Your task to perform on an android device: visit the assistant section in the google photos Image 0: 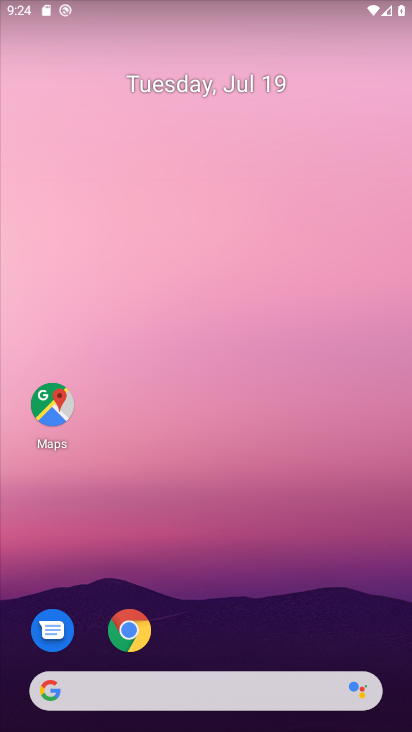
Step 0: drag from (194, 491) to (185, 24)
Your task to perform on an android device: visit the assistant section in the google photos Image 1: 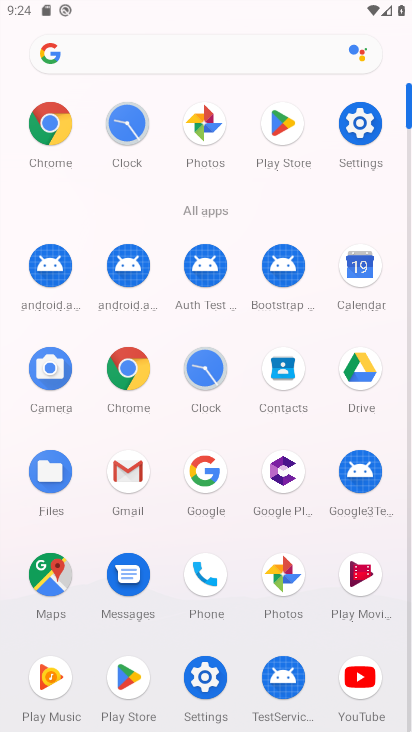
Step 1: click (284, 597)
Your task to perform on an android device: visit the assistant section in the google photos Image 2: 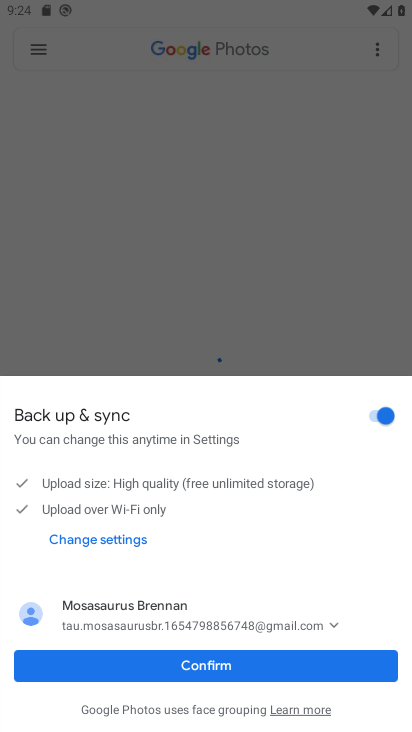
Step 2: click (226, 664)
Your task to perform on an android device: visit the assistant section in the google photos Image 3: 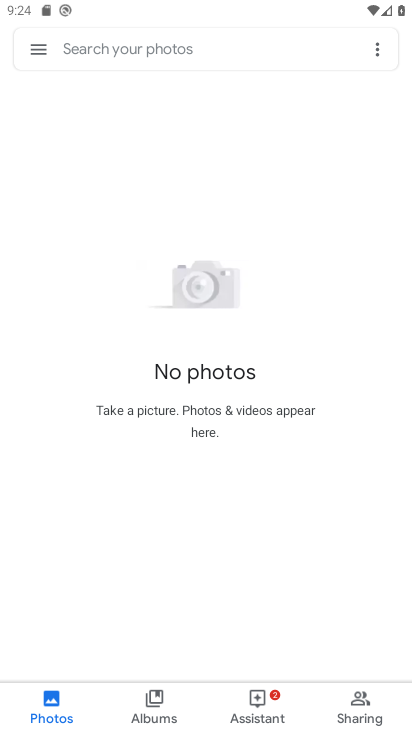
Step 3: click (254, 705)
Your task to perform on an android device: visit the assistant section in the google photos Image 4: 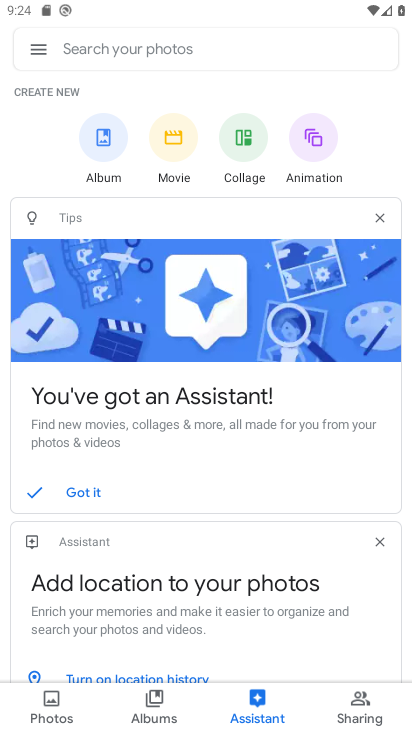
Step 4: task complete